Your task to perform on an android device: Open Chrome and go to the settings page Image 0: 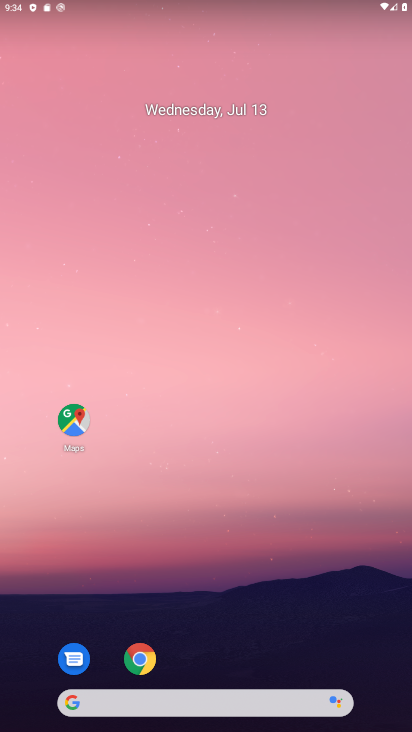
Step 0: drag from (312, 571) to (294, 51)
Your task to perform on an android device: Open Chrome and go to the settings page Image 1: 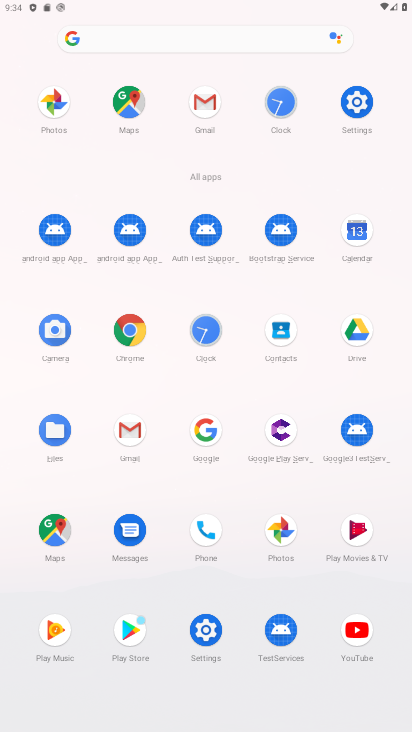
Step 1: click (127, 332)
Your task to perform on an android device: Open Chrome and go to the settings page Image 2: 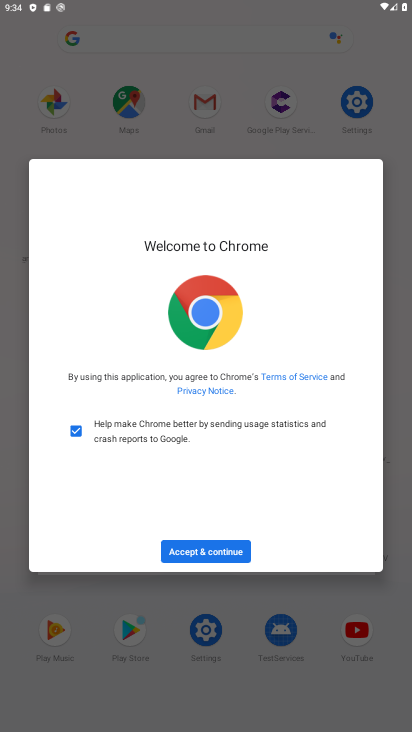
Step 2: click (216, 553)
Your task to perform on an android device: Open Chrome and go to the settings page Image 3: 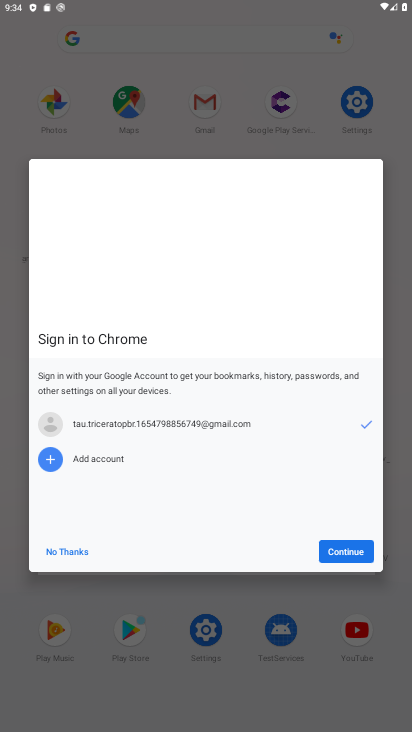
Step 3: click (327, 551)
Your task to perform on an android device: Open Chrome and go to the settings page Image 4: 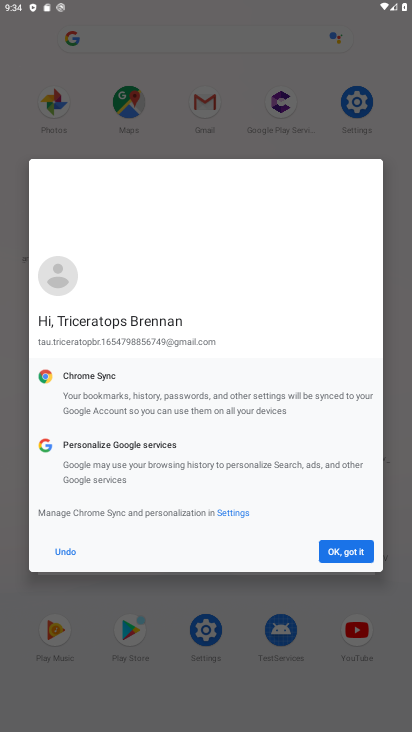
Step 4: click (327, 551)
Your task to perform on an android device: Open Chrome and go to the settings page Image 5: 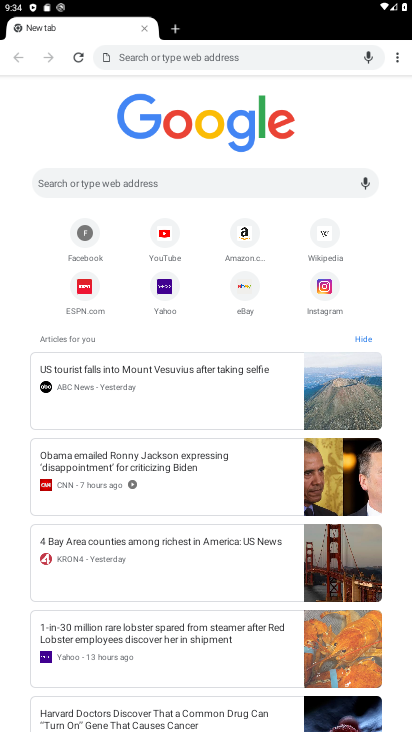
Step 5: task complete